Your task to perform on an android device: Open Wikipedia Image 0: 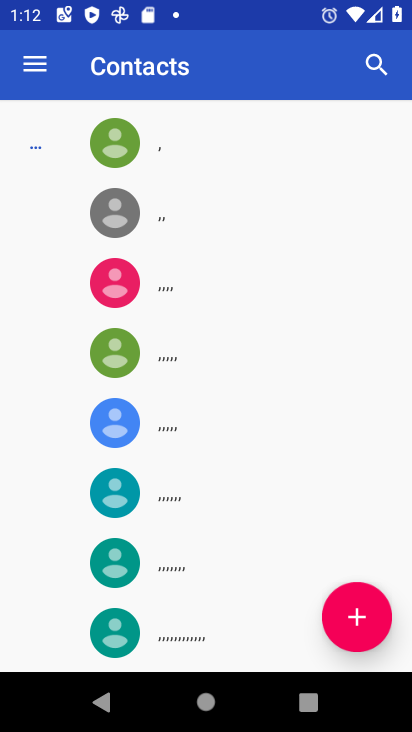
Step 0: drag from (344, 558) to (338, 188)
Your task to perform on an android device: Open Wikipedia Image 1: 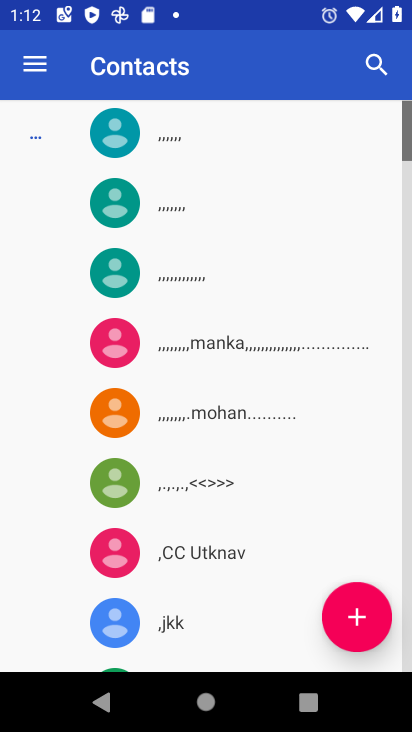
Step 1: press home button
Your task to perform on an android device: Open Wikipedia Image 2: 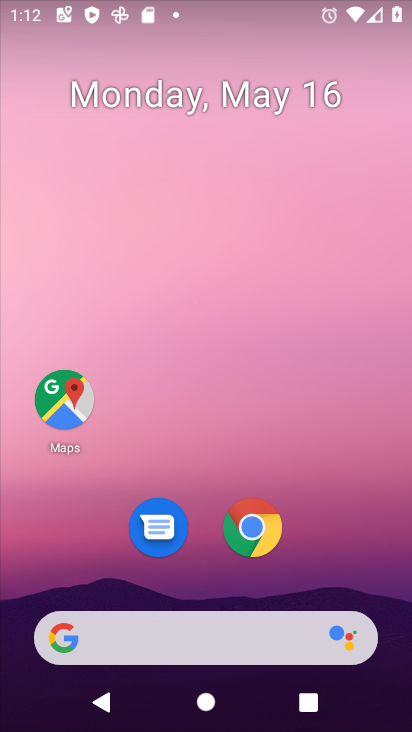
Step 2: click (246, 532)
Your task to perform on an android device: Open Wikipedia Image 3: 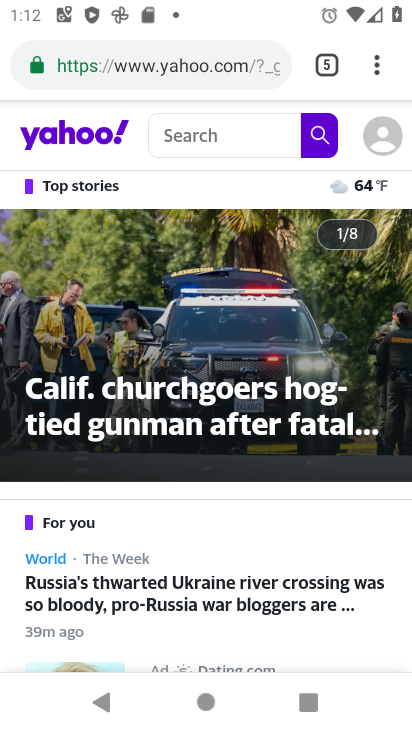
Step 3: click (243, 70)
Your task to perform on an android device: Open Wikipedia Image 4: 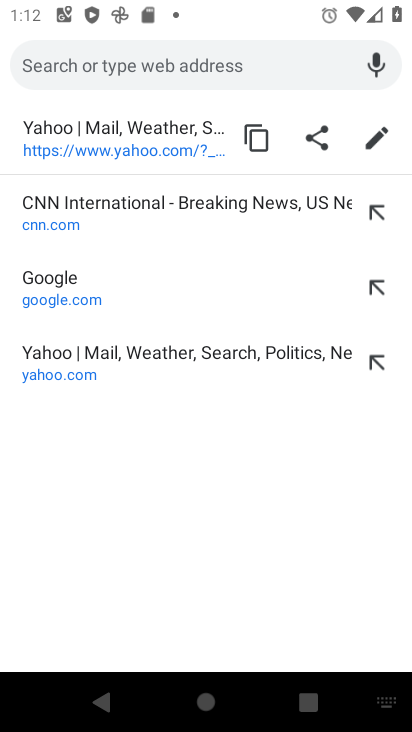
Step 4: type "wikipedia"
Your task to perform on an android device: Open Wikipedia Image 5: 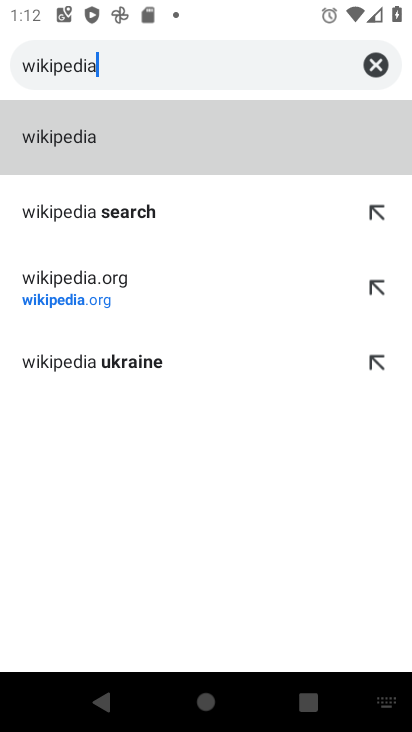
Step 5: click (143, 282)
Your task to perform on an android device: Open Wikipedia Image 6: 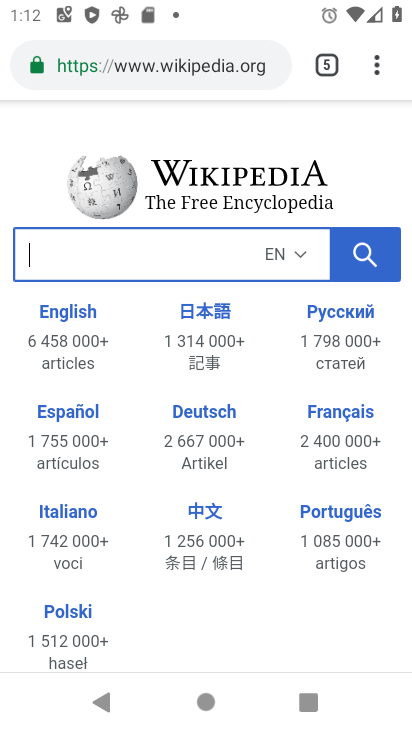
Step 6: task complete